Your task to perform on an android device: What's the weather going to be tomorrow? Image 0: 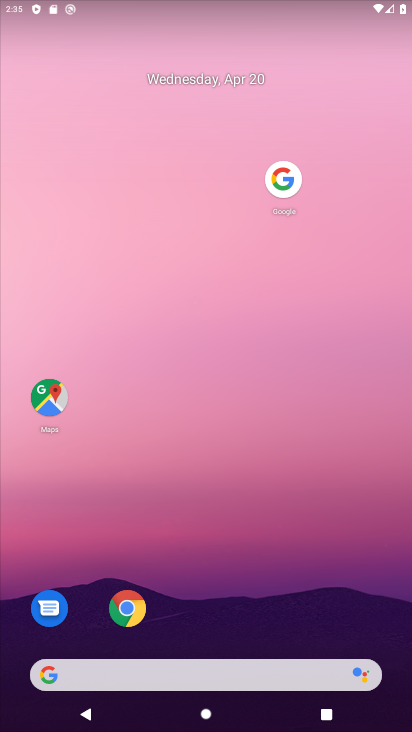
Step 0: drag from (260, 649) to (266, 67)
Your task to perform on an android device: What's the weather going to be tomorrow? Image 1: 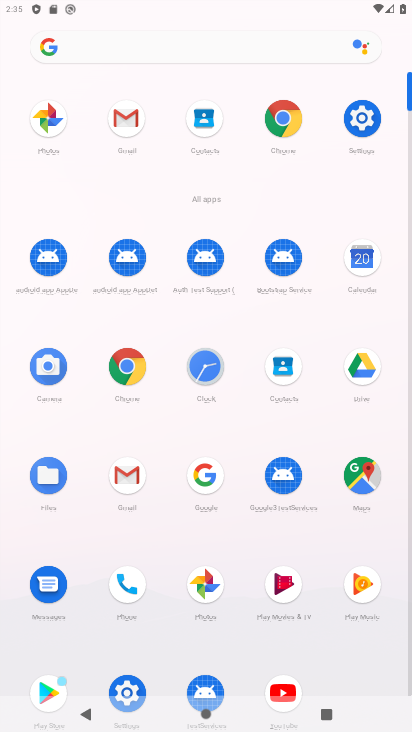
Step 1: click (126, 358)
Your task to perform on an android device: What's the weather going to be tomorrow? Image 2: 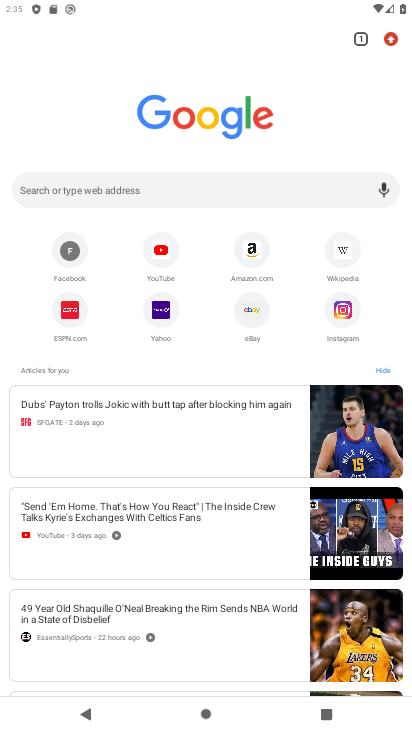
Step 2: click (190, 195)
Your task to perform on an android device: What's the weather going to be tomorrow? Image 3: 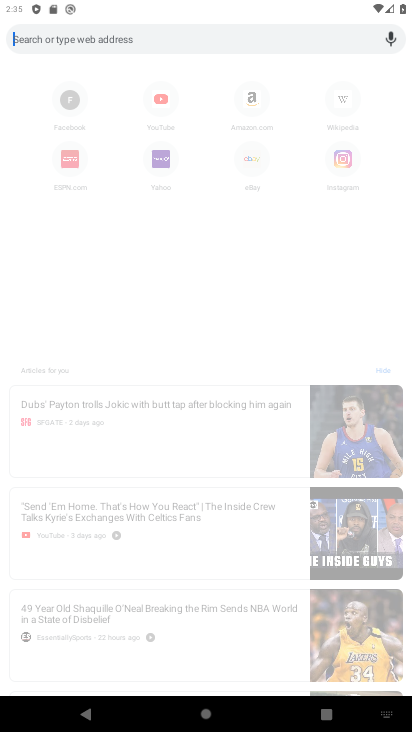
Step 3: type "weather"
Your task to perform on an android device: What's the weather going to be tomorrow? Image 4: 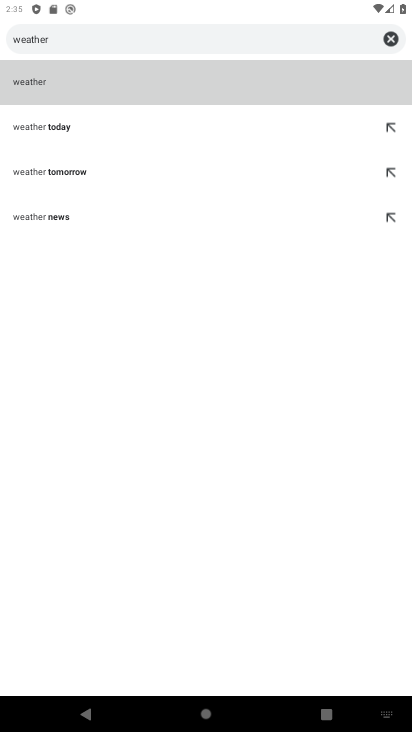
Step 4: click (132, 93)
Your task to perform on an android device: What's the weather going to be tomorrow? Image 5: 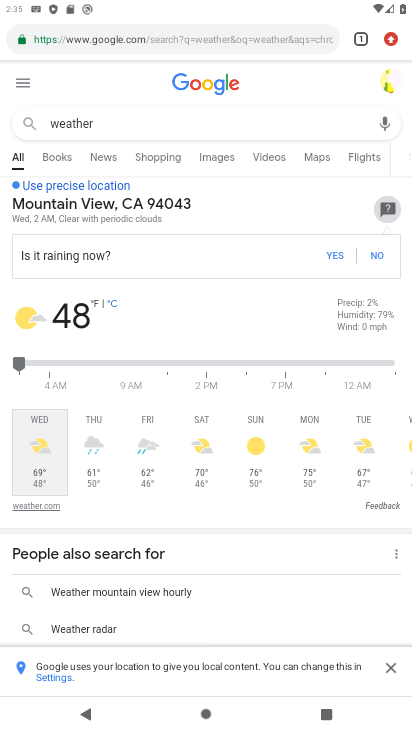
Step 5: click (86, 450)
Your task to perform on an android device: What's the weather going to be tomorrow? Image 6: 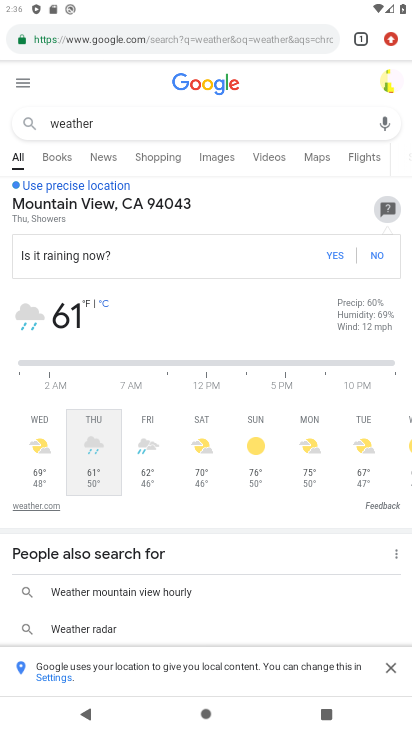
Step 6: task complete